Your task to perform on an android device: Is it going to rain today? Image 0: 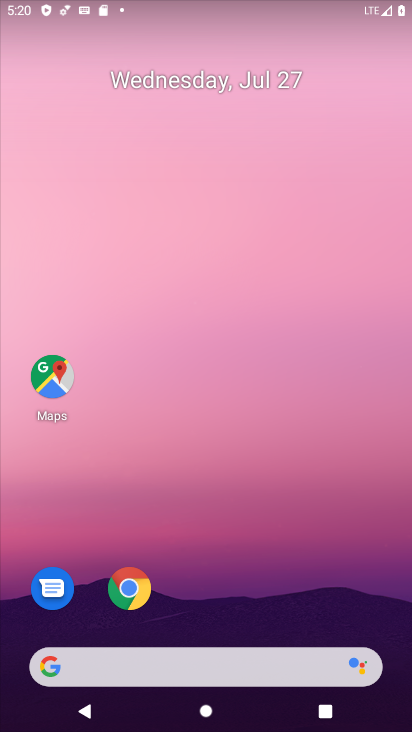
Step 0: drag from (286, 668) to (374, 15)
Your task to perform on an android device: Is it going to rain today? Image 1: 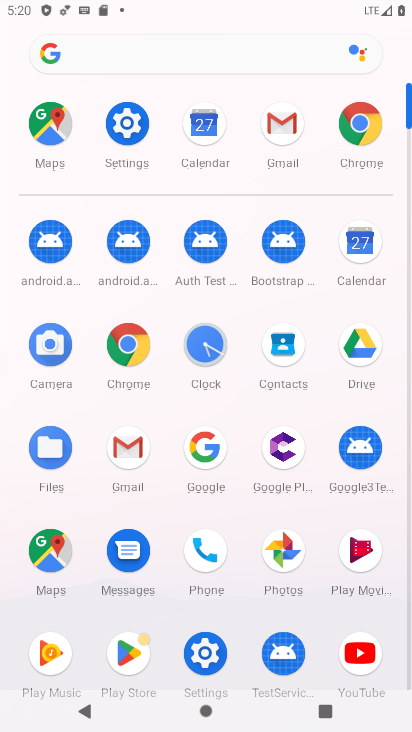
Step 1: click (215, 446)
Your task to perform on an android device: Is it going to rain today? Image 2: 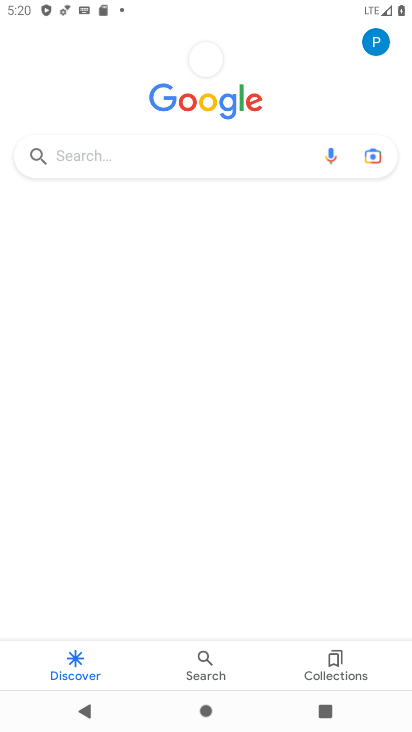
Step 2: click (195, 155)
Your task to perform on an android device: Is it going to rain today? Image 3: 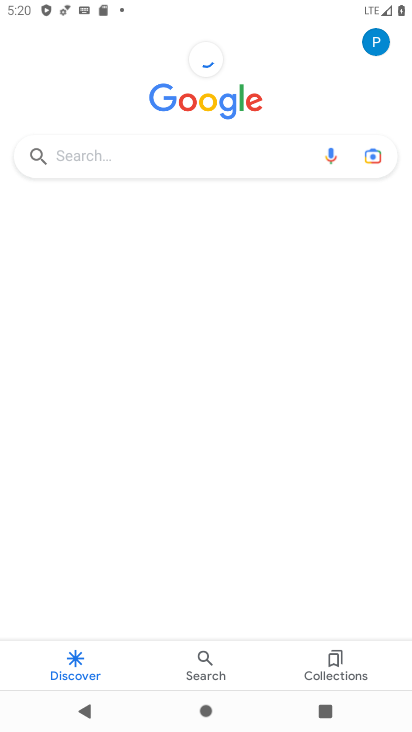
Step 3: click (195, 155)
Your task to perform on an android device: Is it going to rain today? Image 4: 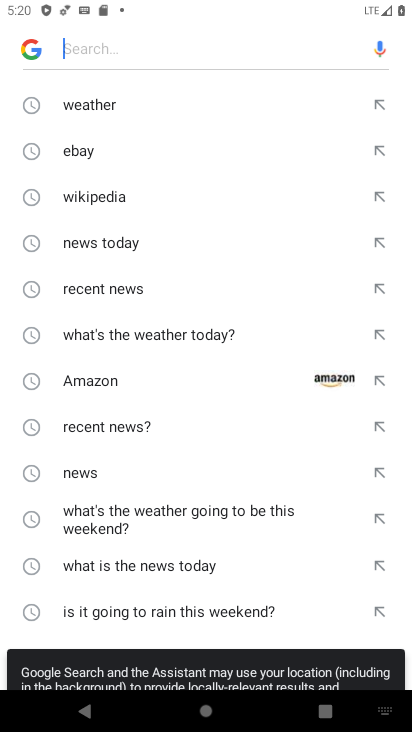
Step 4: drag from (229, 559) to (287, 248)
Your task to perform on an android device: Is it going to rain today? Image 5: 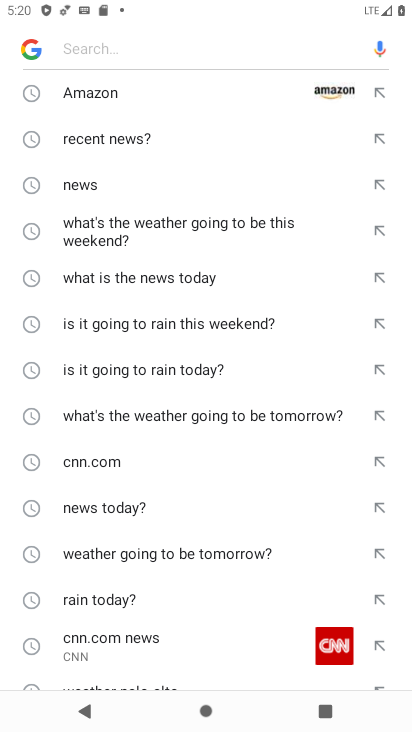
Step 5: click (179, 361)
Your task to perform on an android device: Is it going to rain today? Image 6: 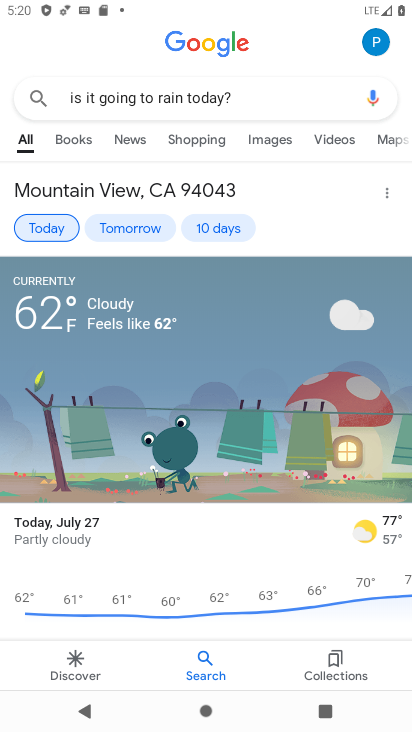
Step 6: task complete